Your task to perform on an android device: empty trash in google photos Image 0: 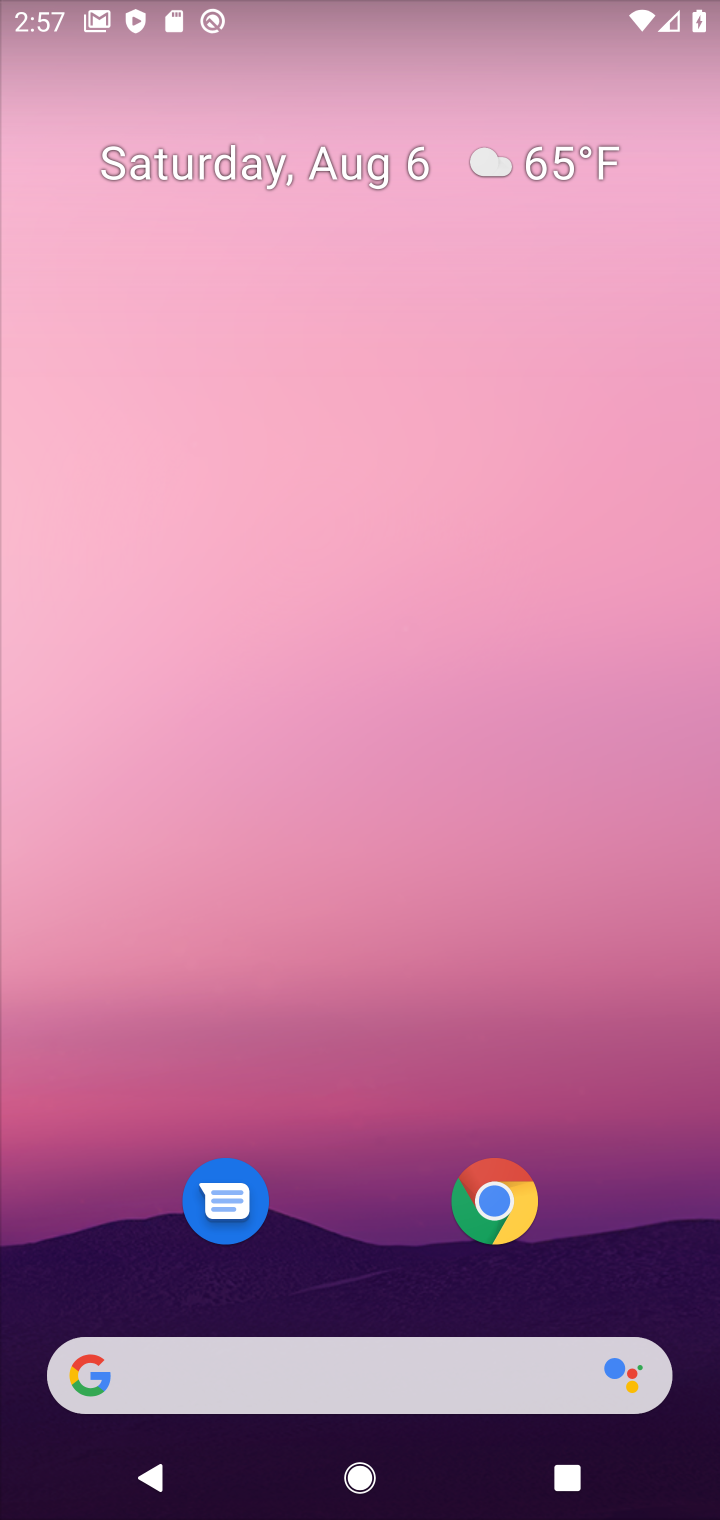
Step 0: click (388, 1483)
Your task to perform on an android device: empty trash in google photos Image 1: 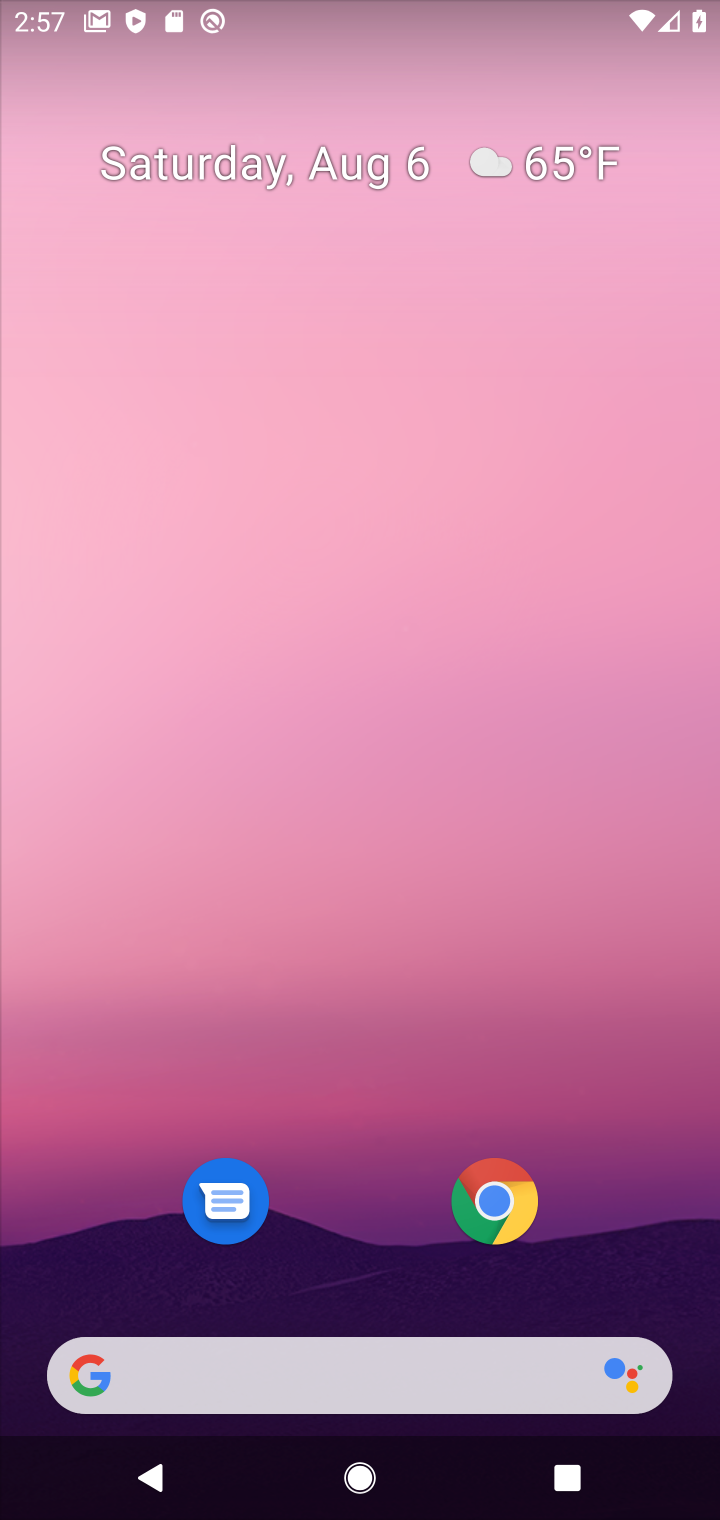
Step 1: drag from (388, 1483) to (393, 256)
Your task to perform on an android device: empty trash in google photos Image 2: 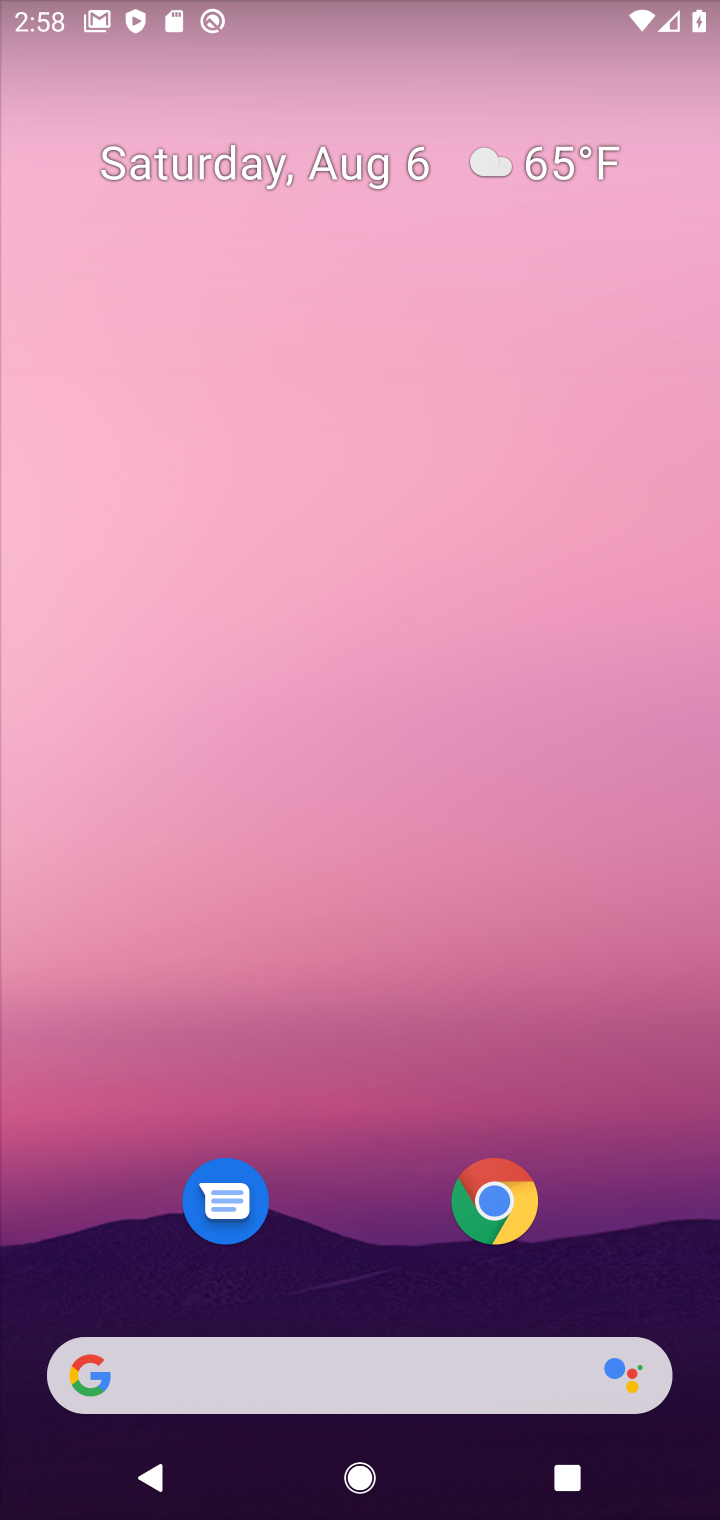
Step 2: drag from (327, 820) to (440, 33)
Your task to perform on an android device: empty trash in google photos Image 3: 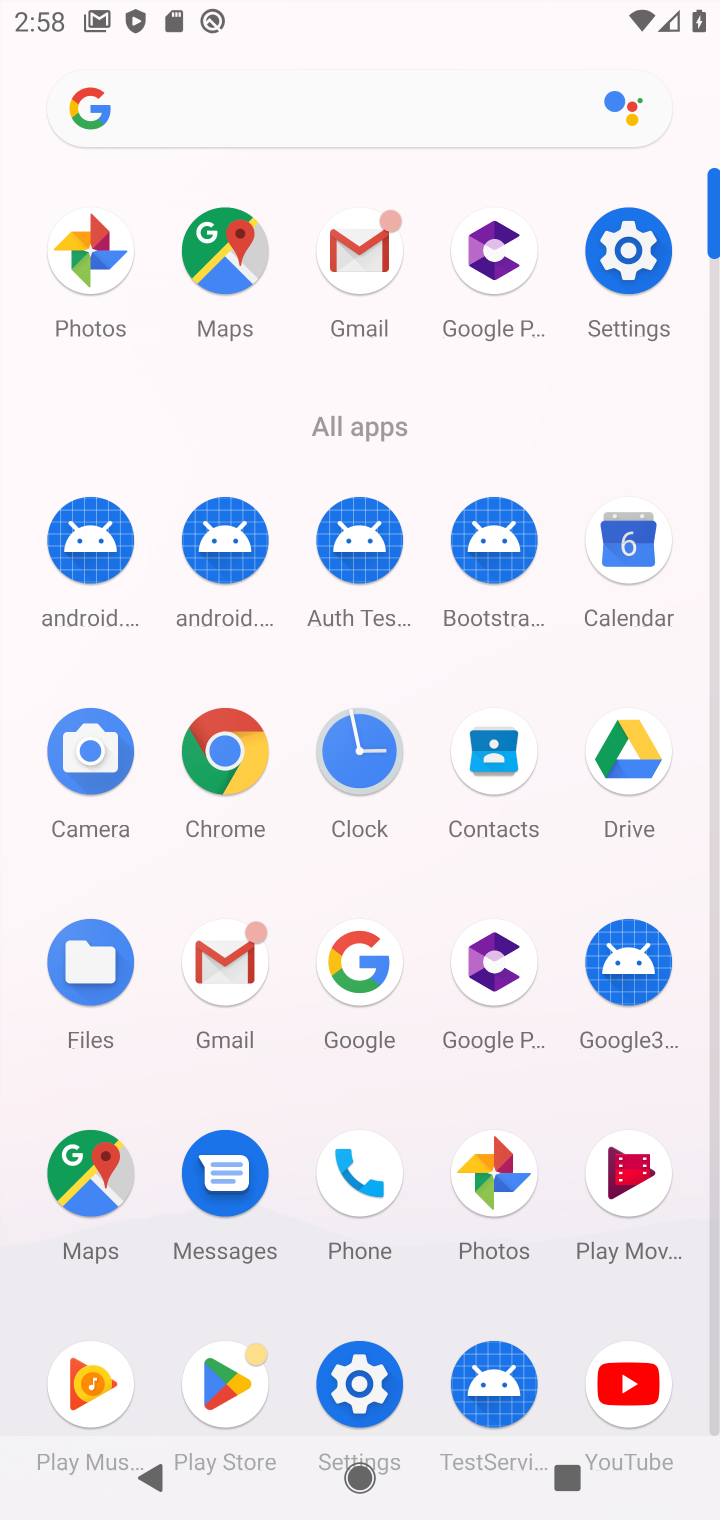
Step 3: click (108, 248)
Your task to perform on an android device: empty trash in google photos Image 4: 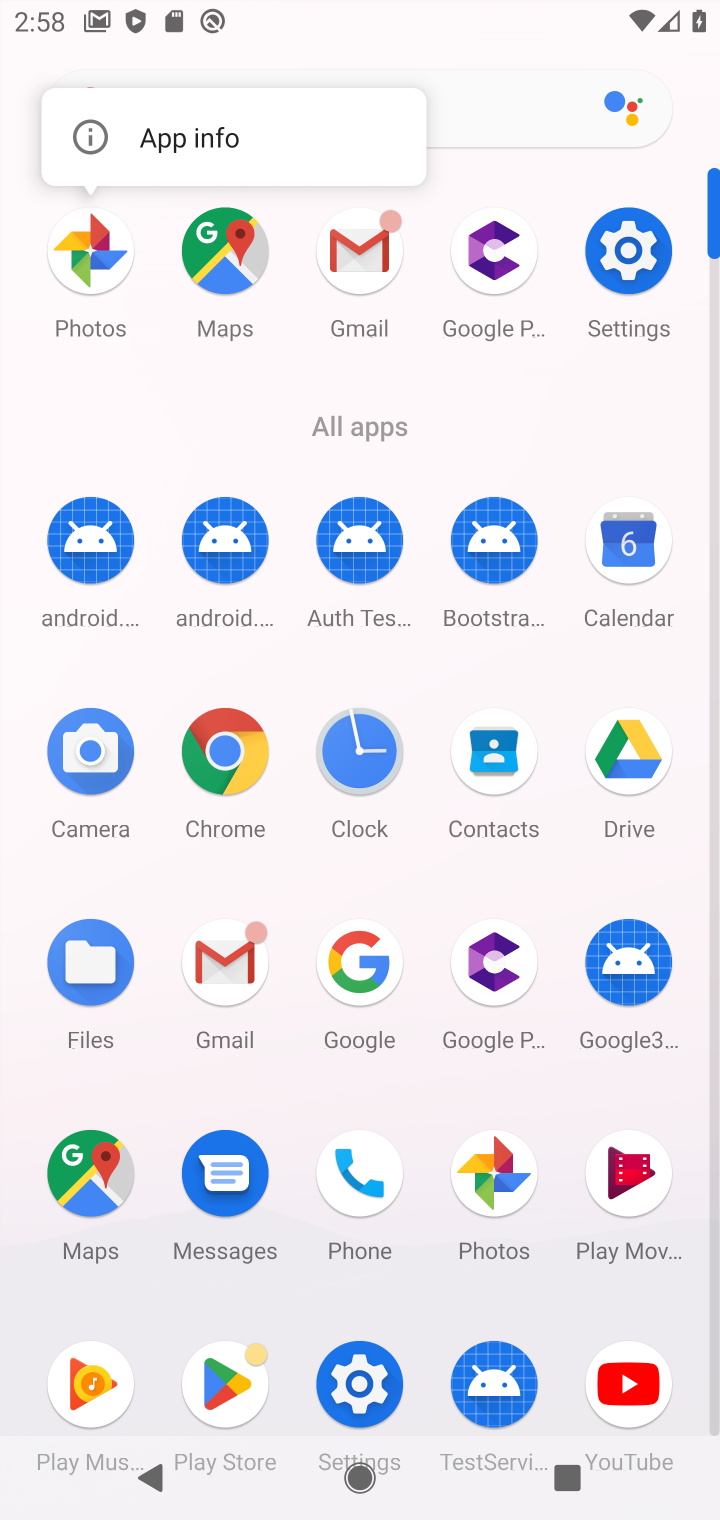
Step 4: click (78, 248)
Your task to perform on an android device: empty trash in google photos Image 5: 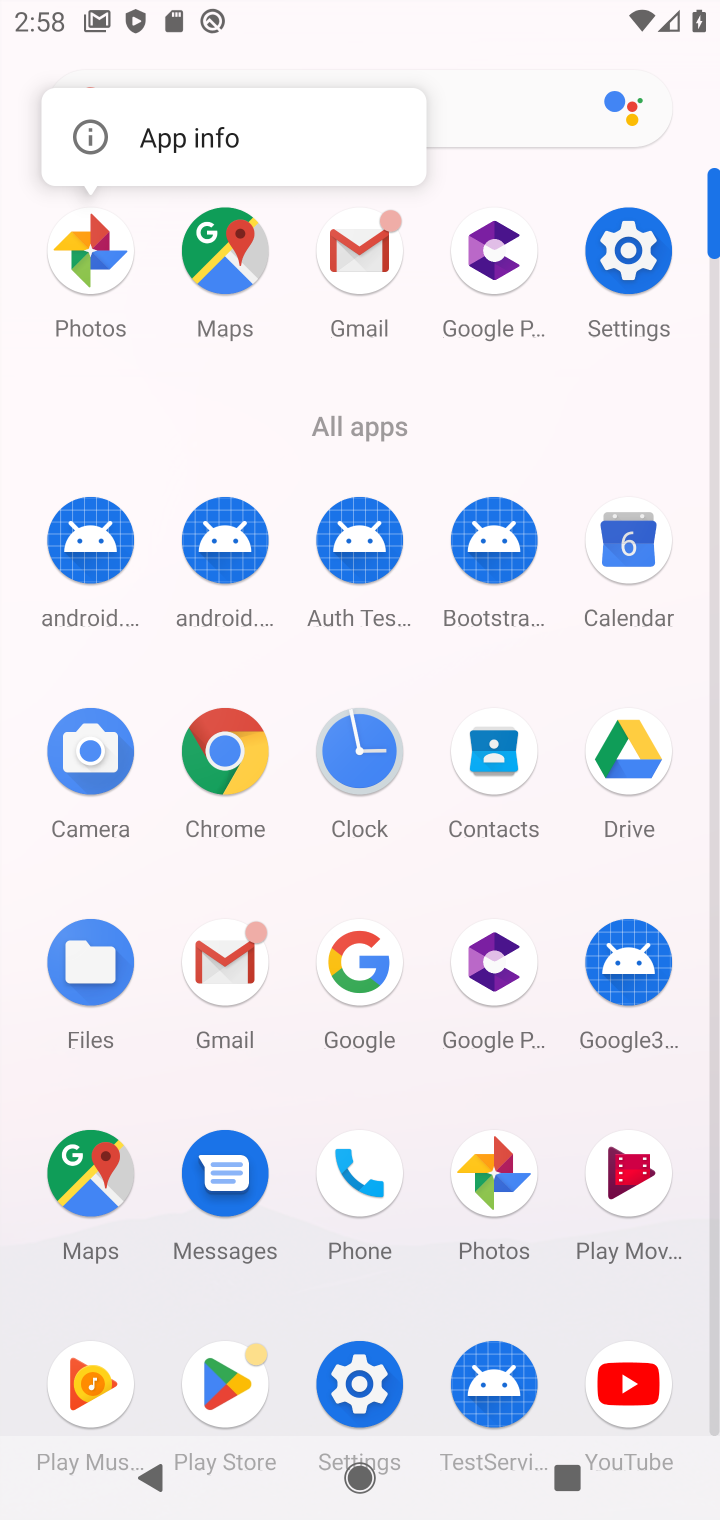
Step 5: click (78, 248)
Your task to perform on an android device: empty trash in google photos Image 6: 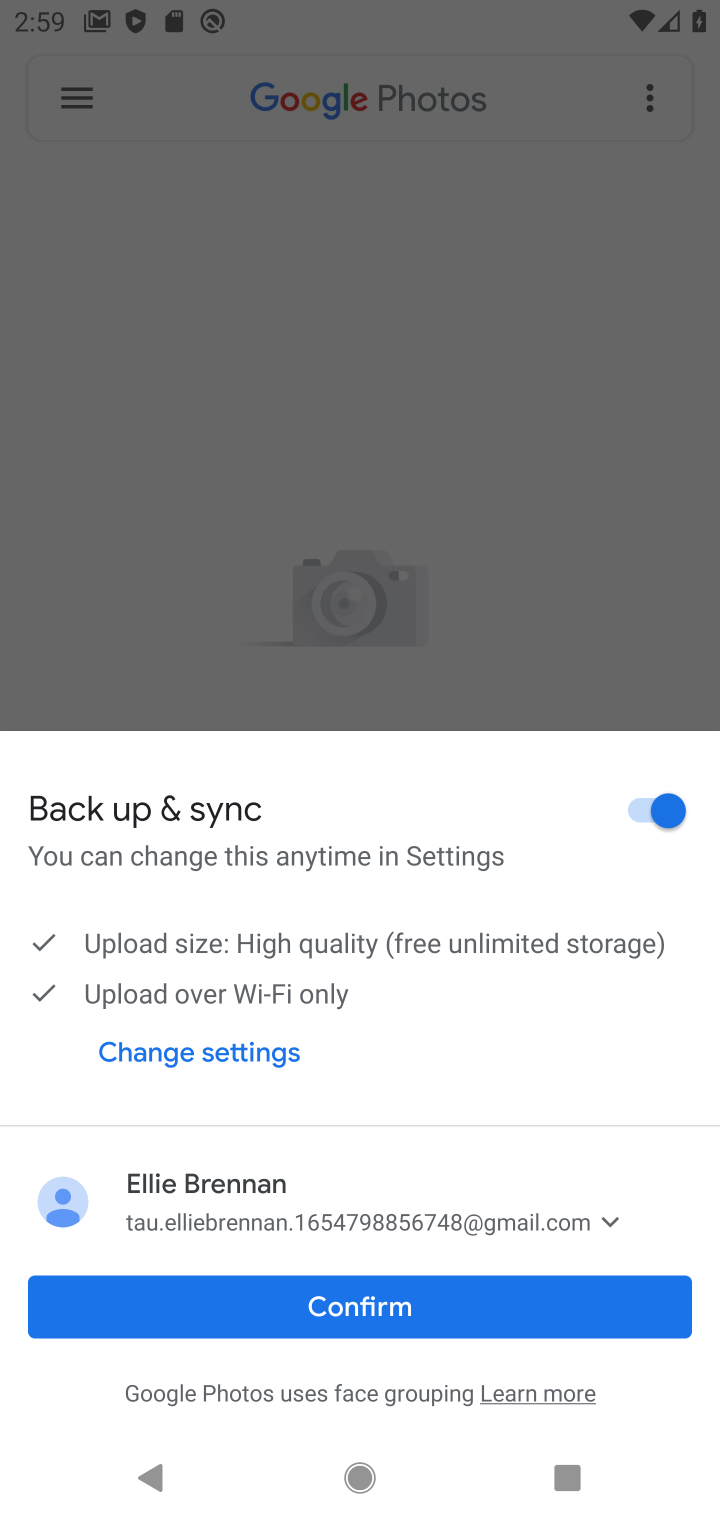
Step 6: click (256, 1289)
Your task to perform on an android device: empty trash in google photos Image 7: 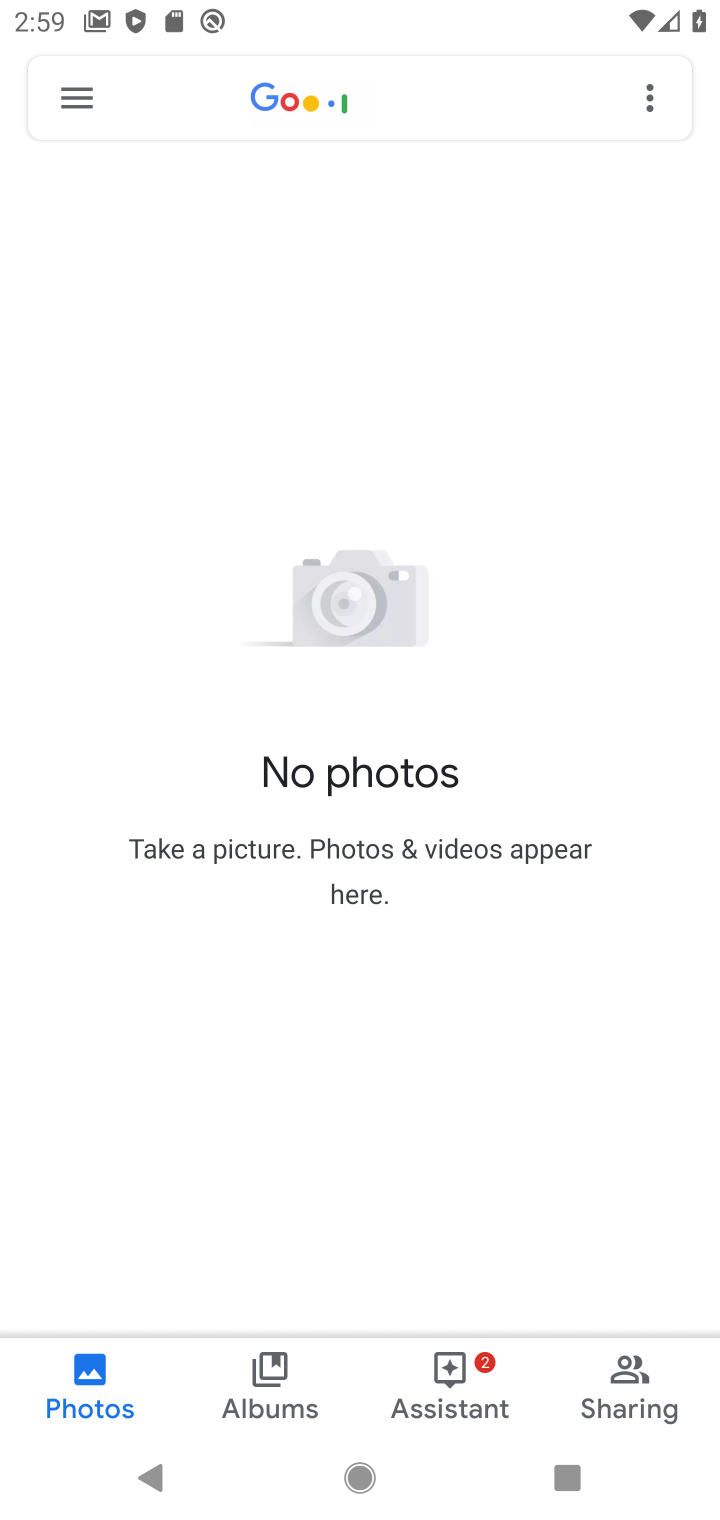
Step 7: click (82, 86)
Your task to perform on an android device: empty trash in google photos Image 8: 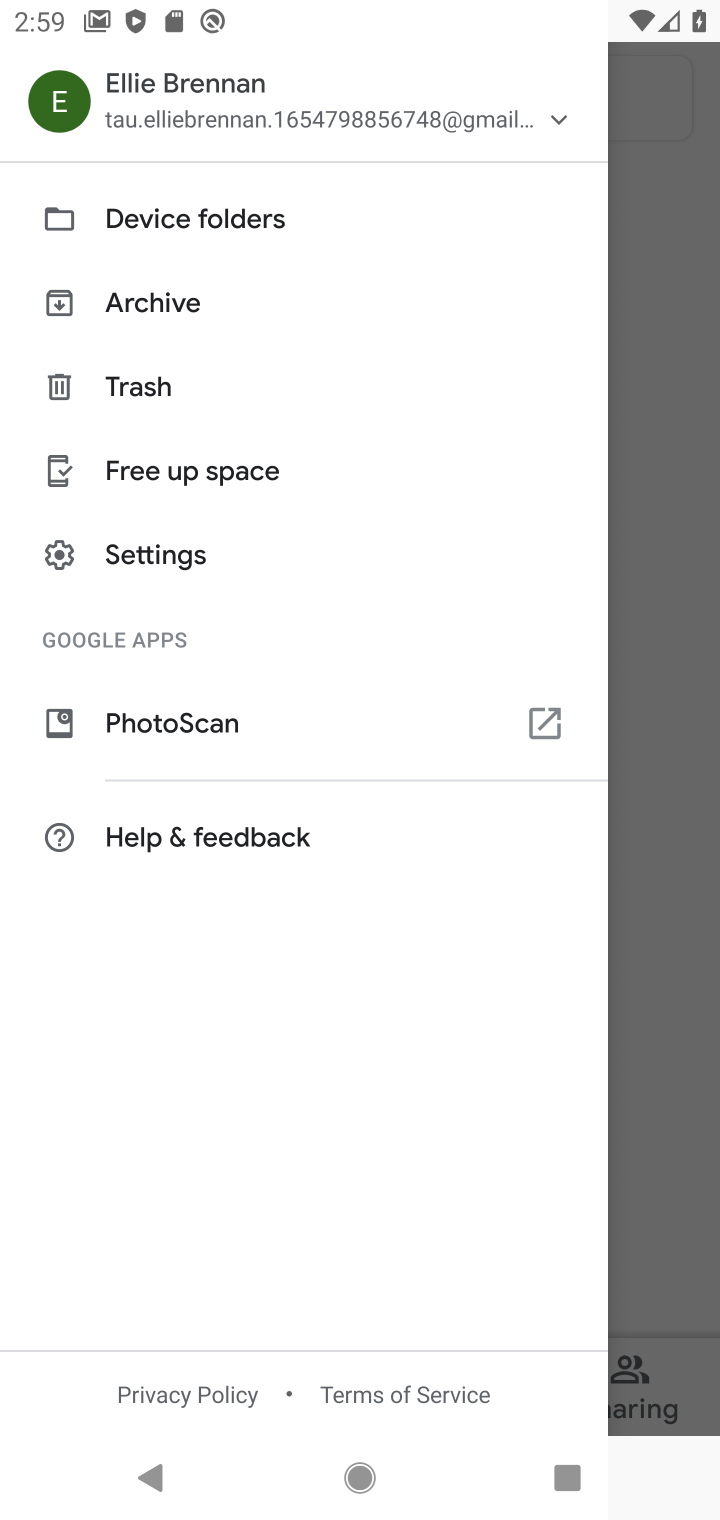
Step 8: click (170, 378)
Your task to perform on an android device: empty trash in google photos Image 9: 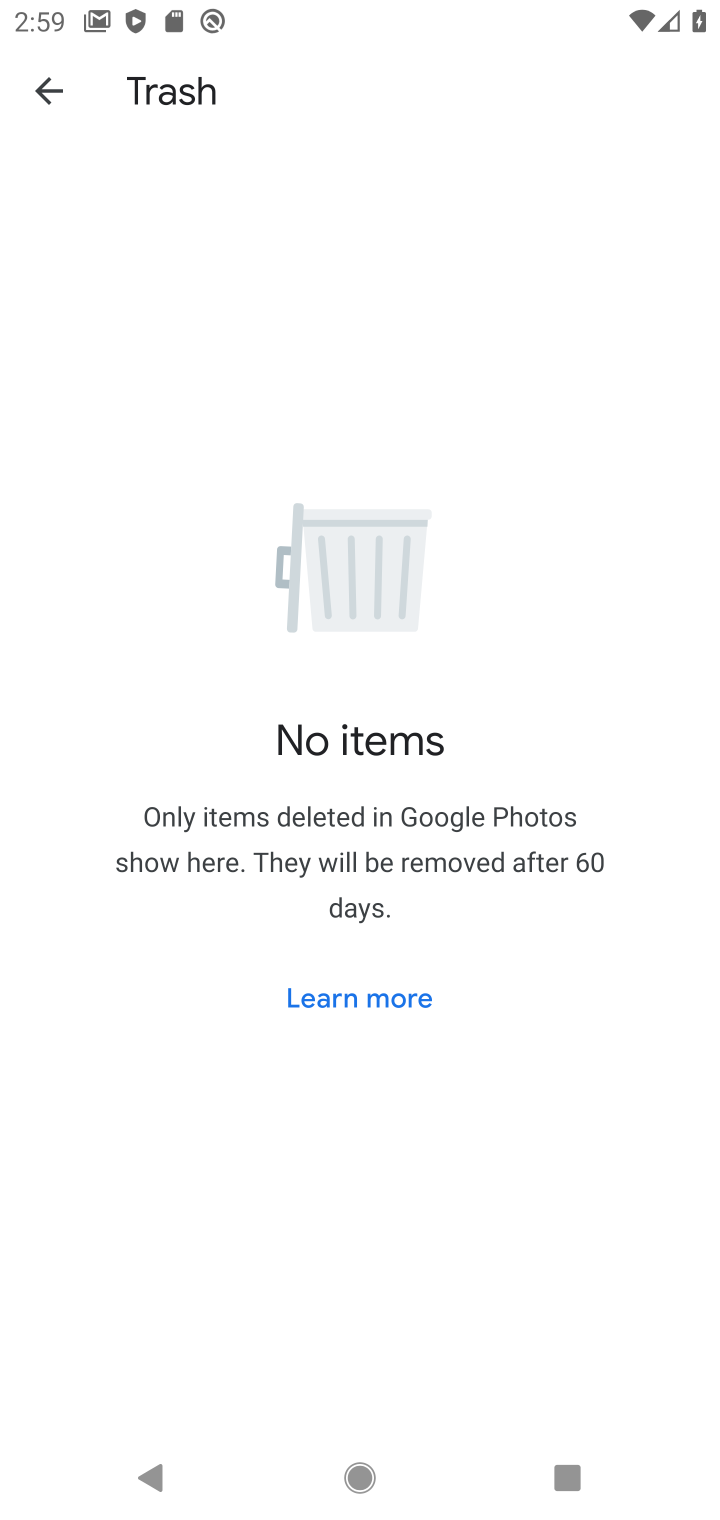
Step 9: task complete